Your task to perform on an android device: Search for pizza restaurants on Maps Image 0: 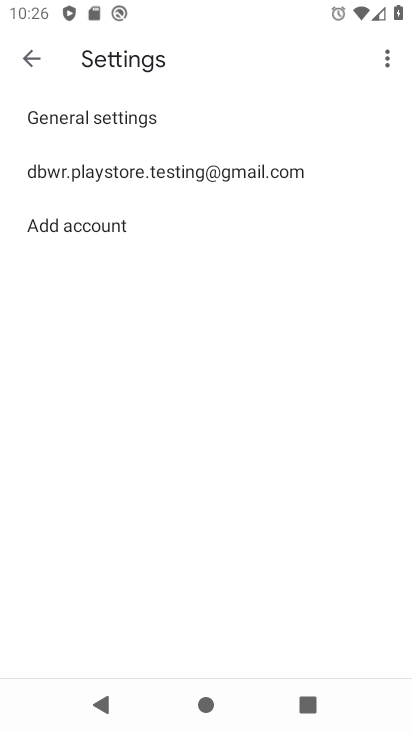
Step 0: press home button
Your task to perform on an android device: Search for pizza restaurants on Maps Image 1: 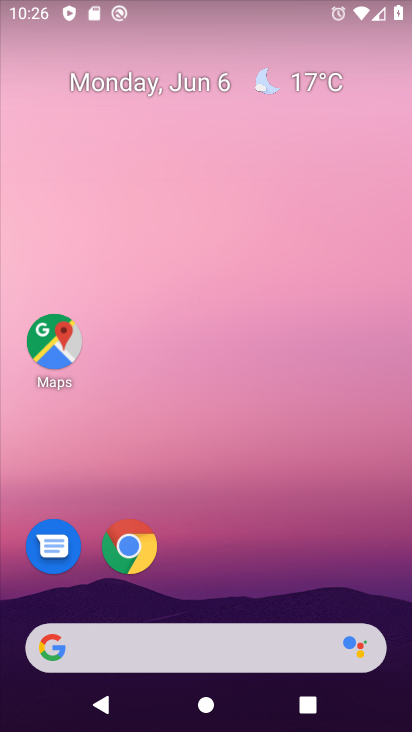
Step 1: click (63, 351)
Your task to perform on an android device: Search for pizza restaurants on Maps Image 2: 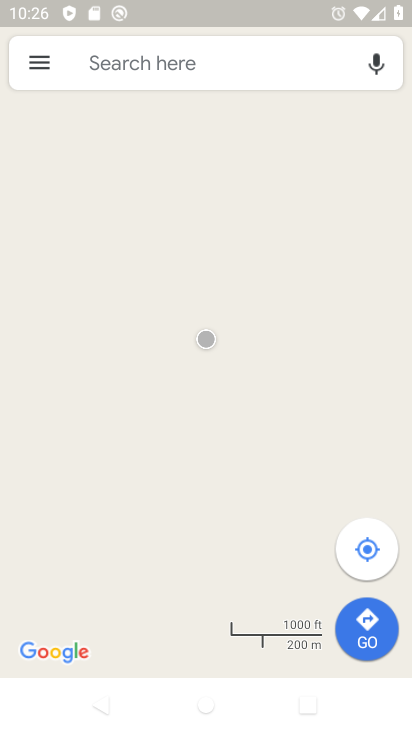
Step 2: click (126, 58)
Your task to perform on an android device: Search for pizza restaurants on Maps Image 3: 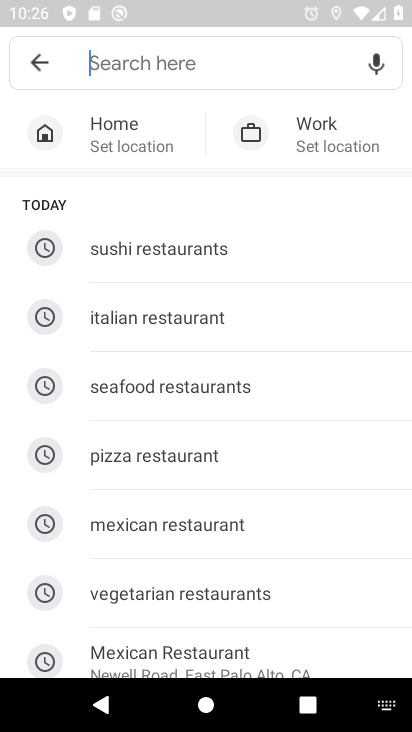
Step 3: type "Pizza restaurants"
Your task to perform on an android device: Search for pizza restaurants on Maps Image 4: 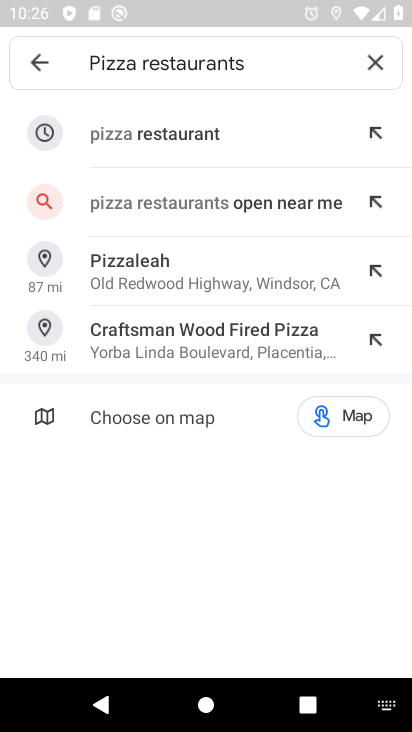
Step 4: click (197, 142)
Your task to perform on an android device: Search for pizza restaurants on Maps Image 5: 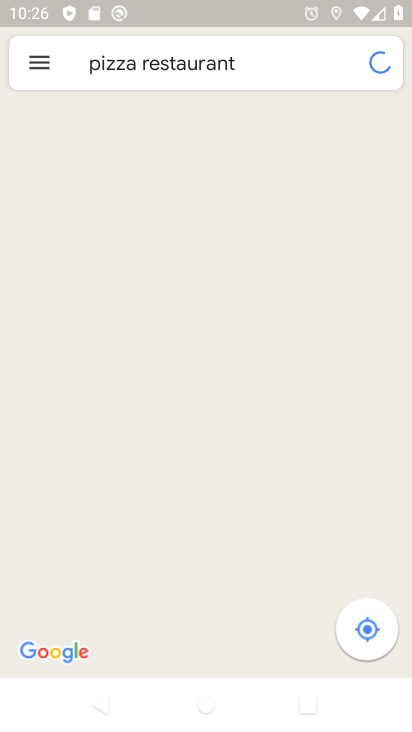
Step 5: click (369, 204)
Your task to perform on an android device: Search for pizza restaurants on Maps Image 6: 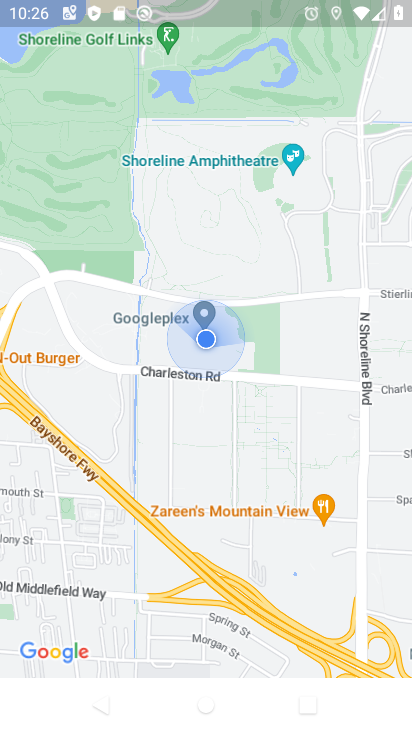
Step 6: task complete